Your task to perform on an android device: What's on my calendar tomorrow? Image 0: 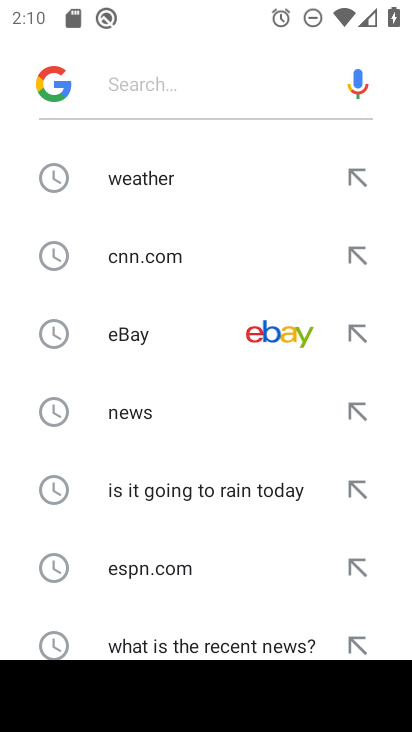
Step 0: press home button
Your task to perform on an android device: What's on my calendar tomorrow? Image 1: 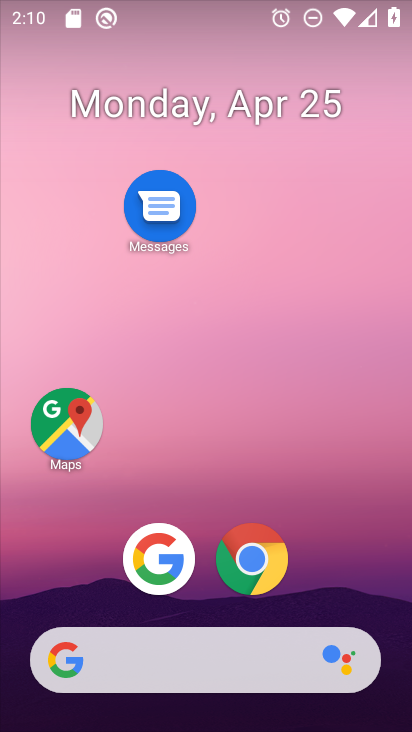
Step 1: drag from (207, 596) to (215, 109)
Your task to perform on an android device: What's on my calendar tomorrow? Image 2: 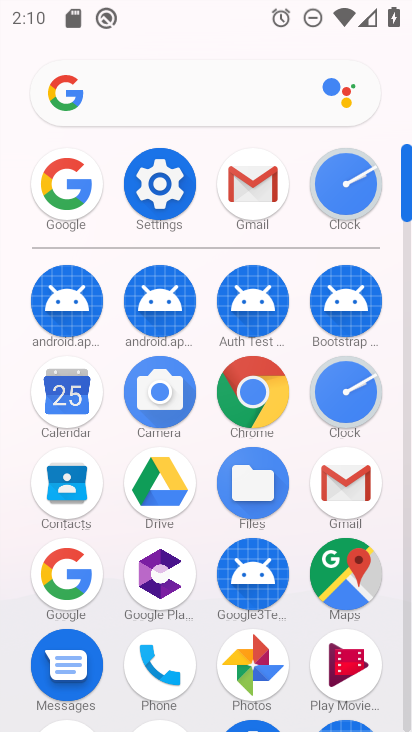
Step 2: click (69, 397)
Your task to perform on an android device: What's on my calendar tomorrow? Image 3: 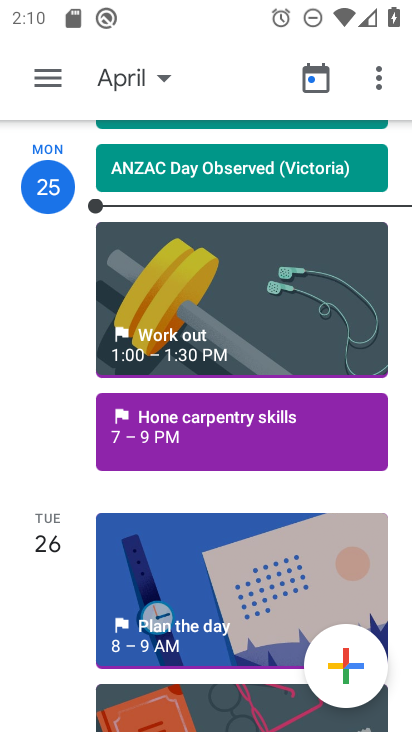
Step 3: click (156, 75)
Your task to perform on an android device: What's on my calendar tomorrow? Image 4: 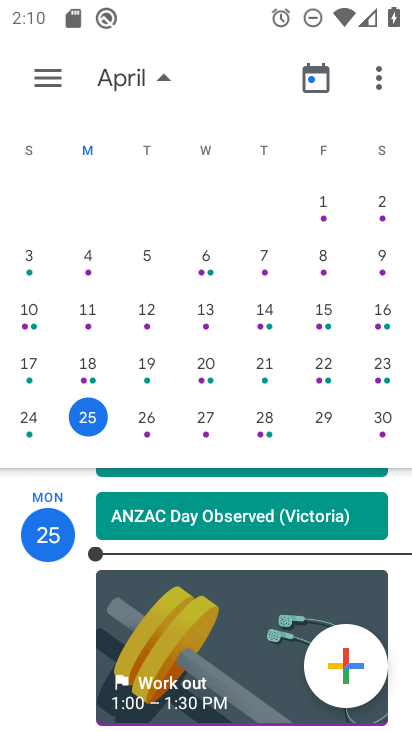
Step 4: click (143, 422)
Your task to perform on an android device: What's on my calendar tomorrow? Image 5: 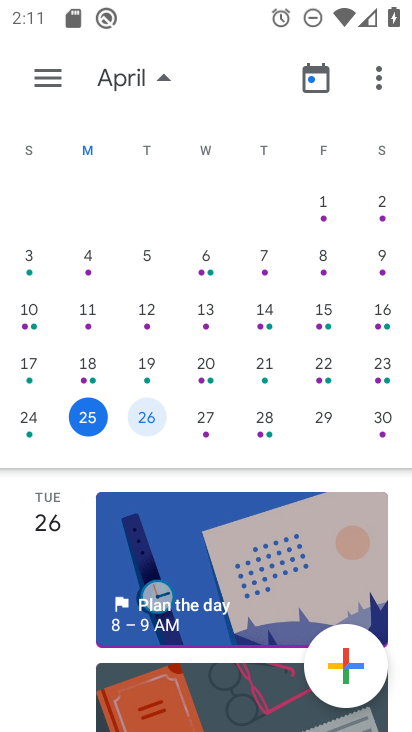
Step 5: task complete